Your task to perform on an android device: Show me productivity apps on the Play Store Image 0: 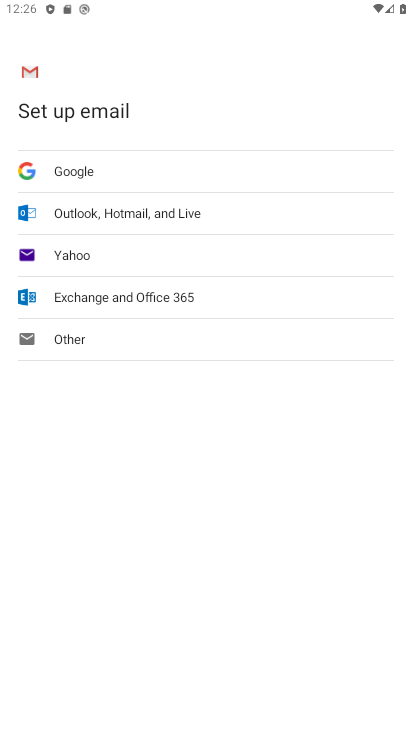
Step 0: press home button
Your task to perform on an android device: Show me productivity apps on the Play Store Image 1: 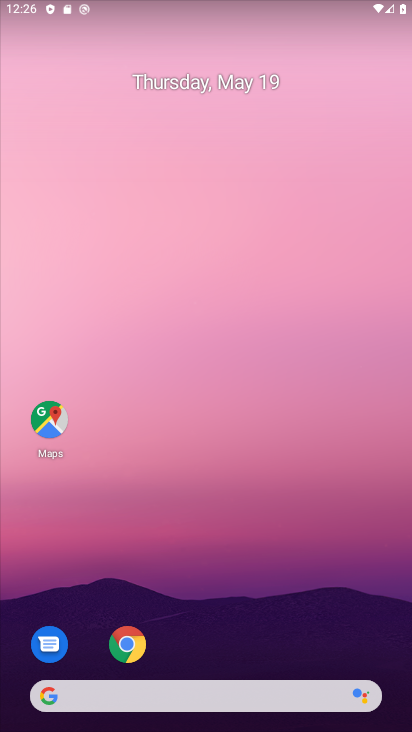
Step 1: click (386, 36)
Your task to perform on an android device: Show me productivity apps on the Play Store Image 2: 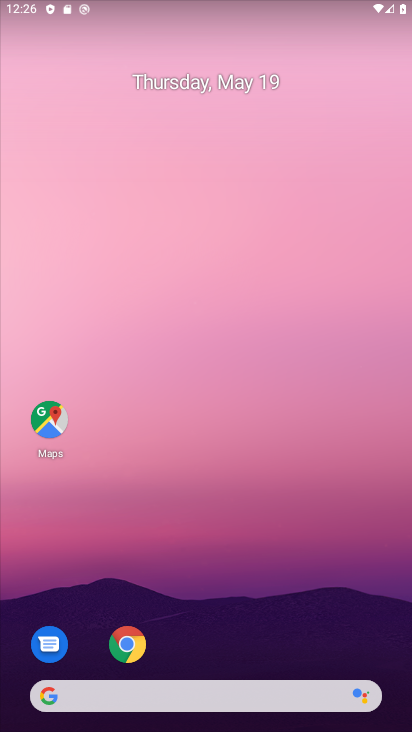
Step 2: drag from (396, 688) to (321, 66)
Your task to perform on an android device: Show me productivity apps on the Play Store Image 3: 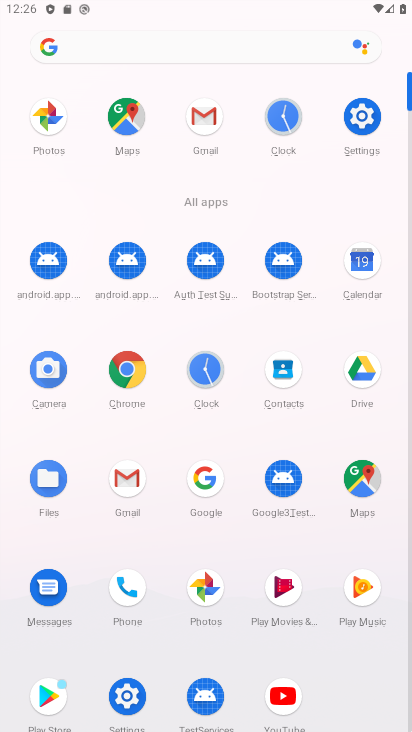
Step 3: click (44, 699)
Your task to perform on an android device: Show me productivity apps on the Play Store Image 4: 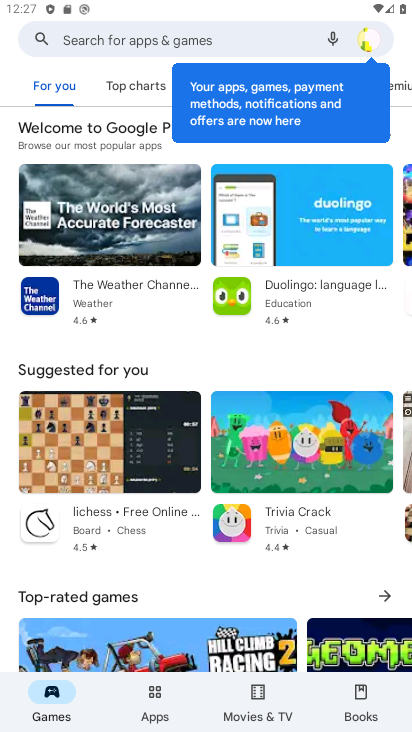
Step 4: click (222, 40)
Your task to perform on an android device: Show me productivity apps on the Play Store Image 5: 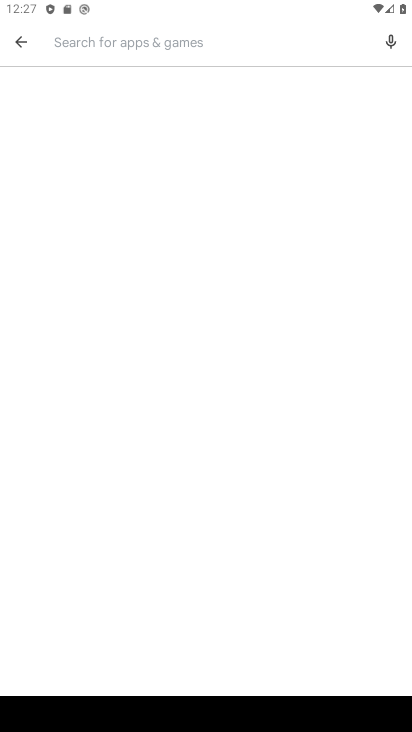
Step 5: type "productivity apps "
Your task to perform on an android device: Show me productivity apps on the Play Store Image 6: 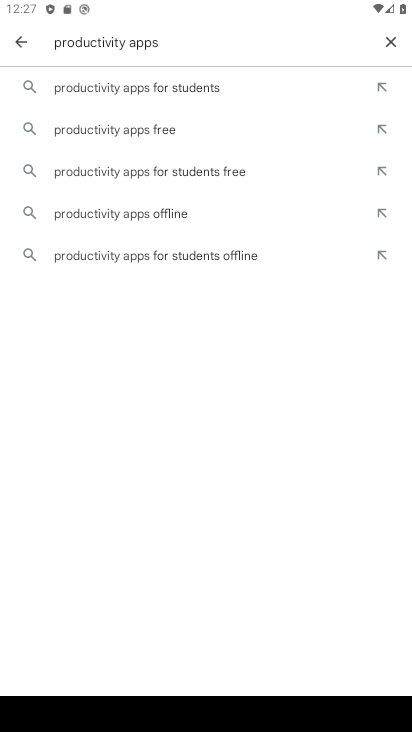
Step 6: click (89, 127)
Your task to perform on an android device: Show me productivity apps on the Play Store Image 7: 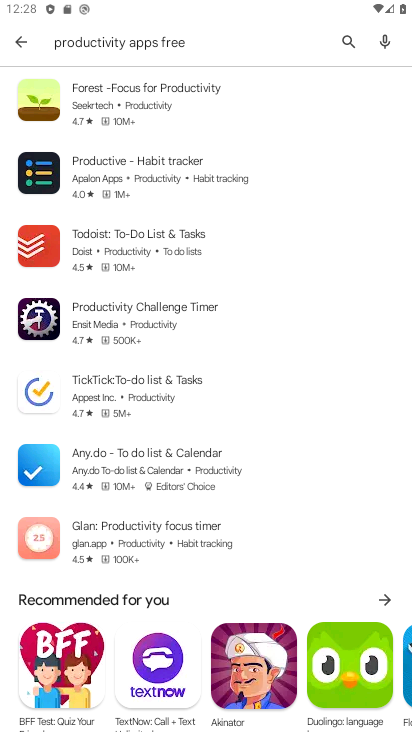
Step 7: task complete